Your task to perform on an android device: snooze an email in the gmail app Image 0: 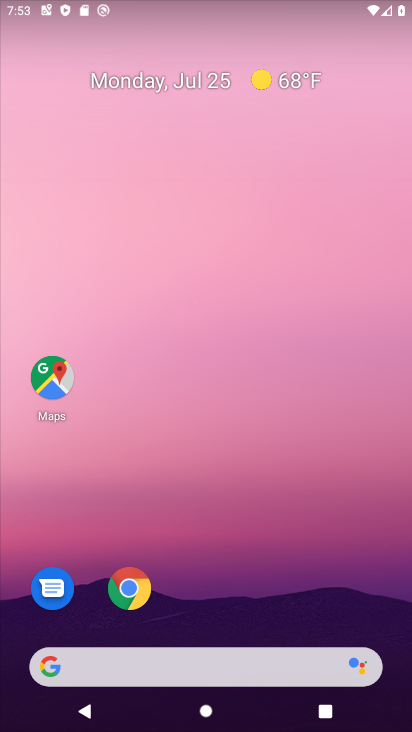
Step 0: press home button
Your task to perform on an android device: snooze an email in the gmail app Image 1: 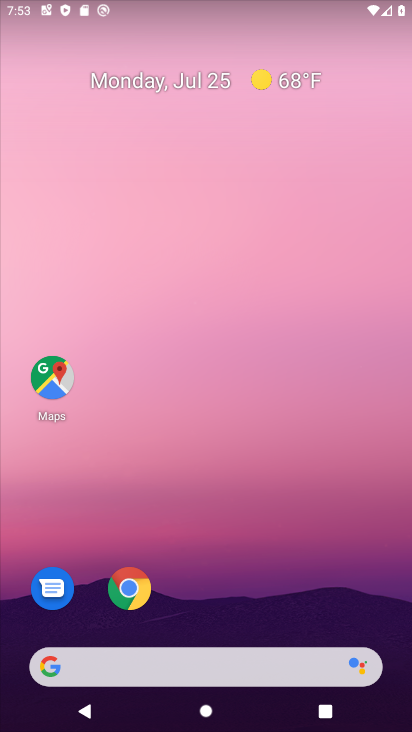
Step 1: drag from (339, 578) to (358, 104)
Your task to perform on an android device: snooze an email in the gmail app Image 2: 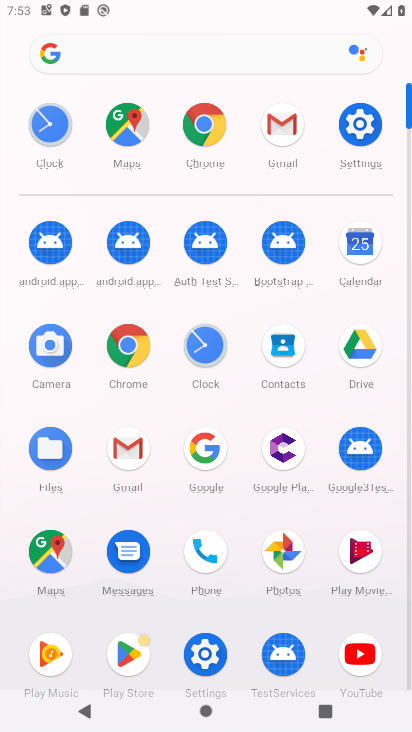
Step 2: click (275, 126)
Your task to perform on an android device: snooze an email in the gmail app Image 3: 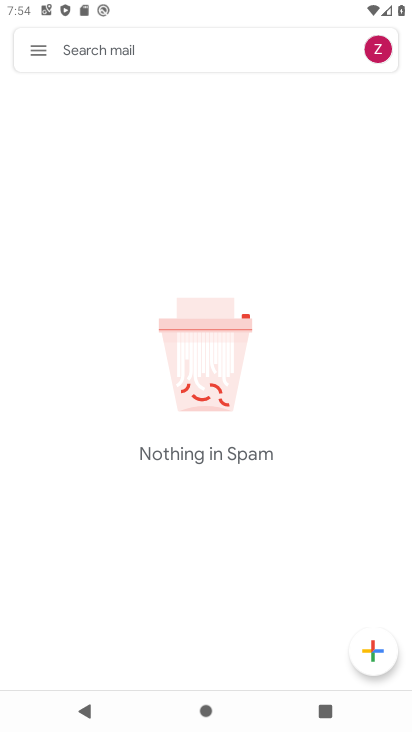
Step 3: click (40, 49)
Your task to perform on an android device: snooze an email in the gmail app Image 4: 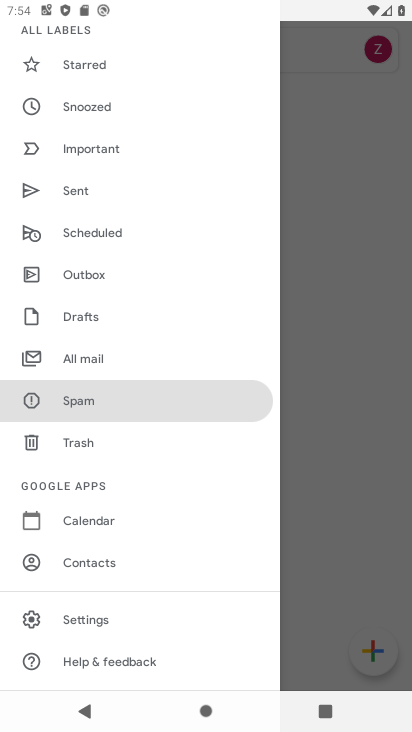
Step 4: drag from (184, 212) to (185, 301)
Your task to perform on an android device: snooze an email in the gmail app Image 5: 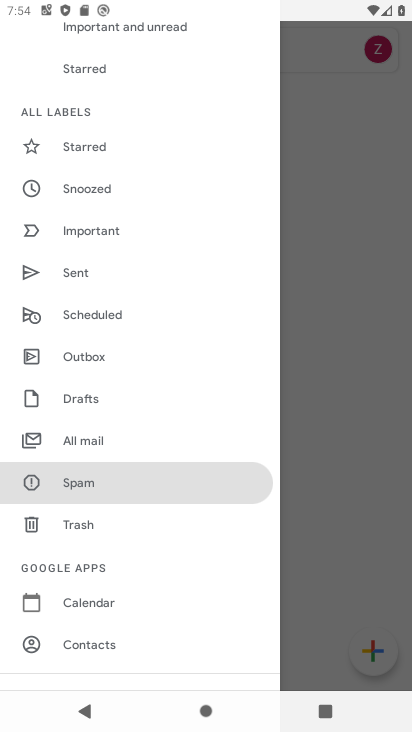
Step 5: drag from (223, 180) to (212, 387)
Your task to perform on an android device: snooze an email in the gmail app Image 6: 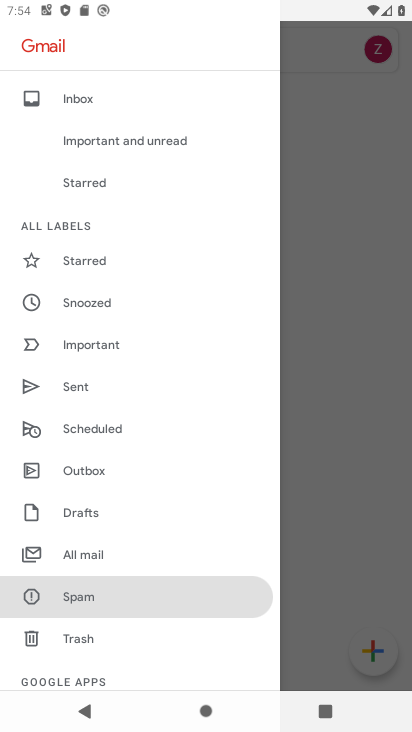
Step 6: click (116, 301)
Your task to perform on an android device: snooze an email in the gmail app Image 7: 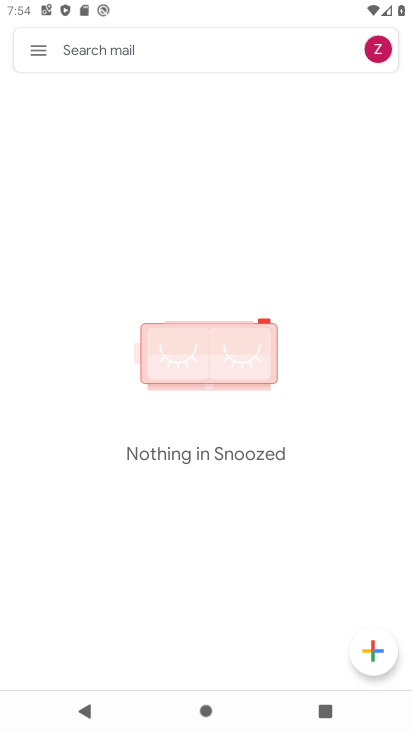
Step 7: task complete